Your task to perform on an android device: change the clock style Image 0: 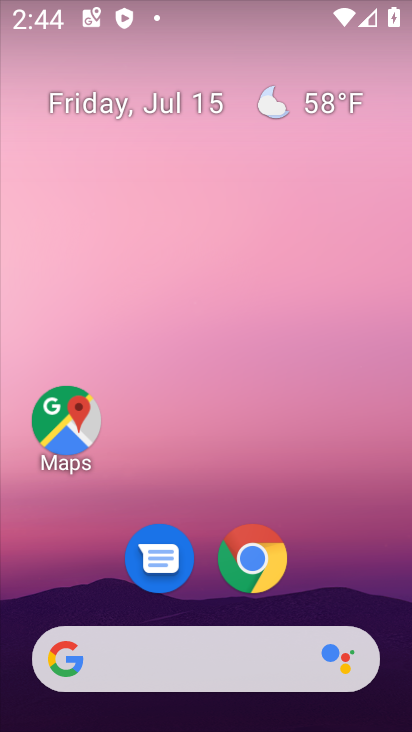
Step 0: drag from (347, 566) to (391, 111)
Your task to perform on an android device: change the clock style Image 1: 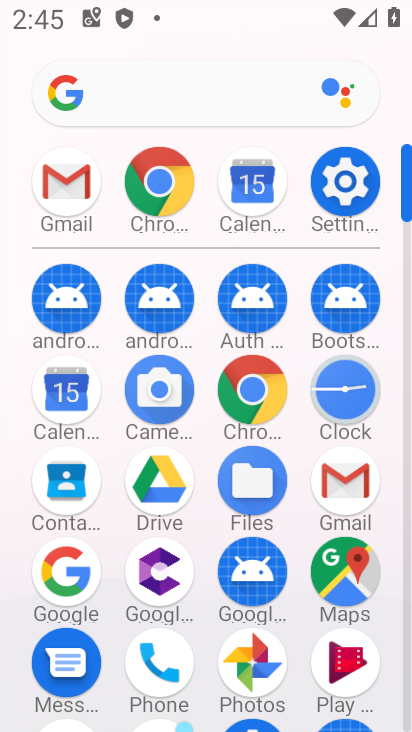
Step 1: click (363, 388)
Your task to perform on an android device: change the clock style Image 2: 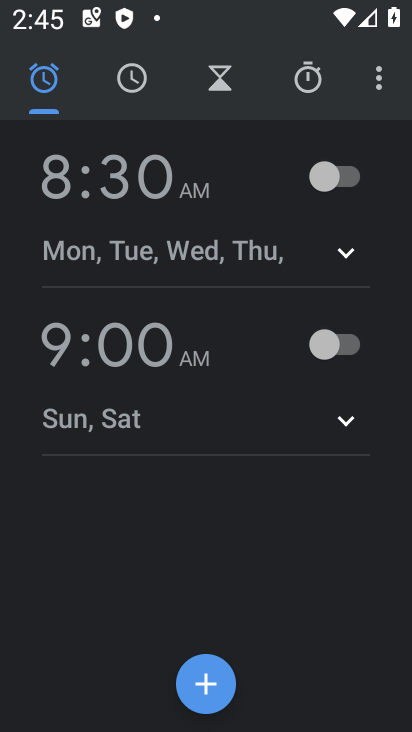
Step 2: click (377, 74)
Your task to perform on an android device: change the clock style Image 3: 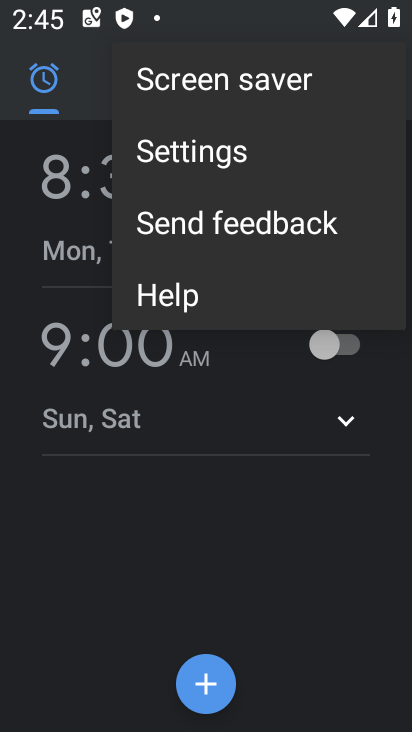
Step 3: click (265, 157)
Your task to perform on an android device: change the clock style Image 4: 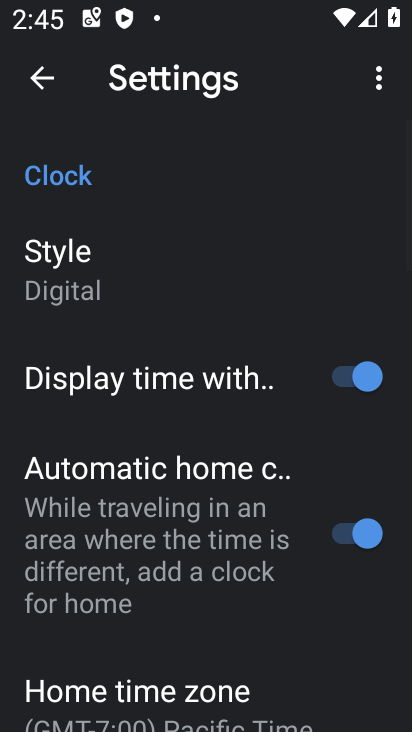
Step 4: drag from (280, 559) to (295, 457)
Your task to perform on an android device: change the clock style Image 5: 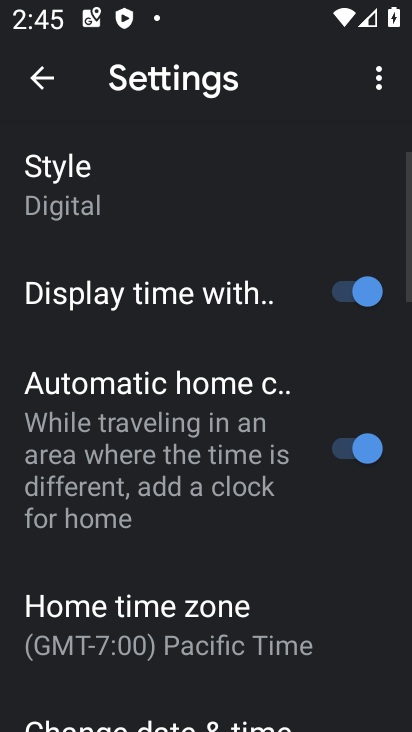
Step 5: drag from (305, 552) to (318, 414)
Your task to perform on an android device: change the clock style Image 6: 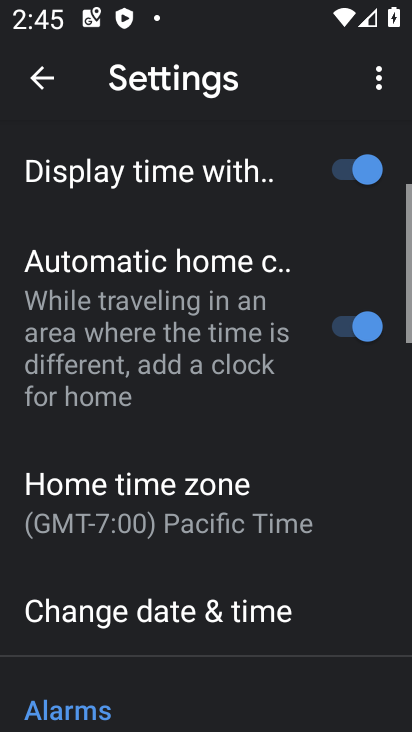
Step 6: drag from (333, 518) to (336, 396)
Your task to perform on an android device: change the clock style Image 7: 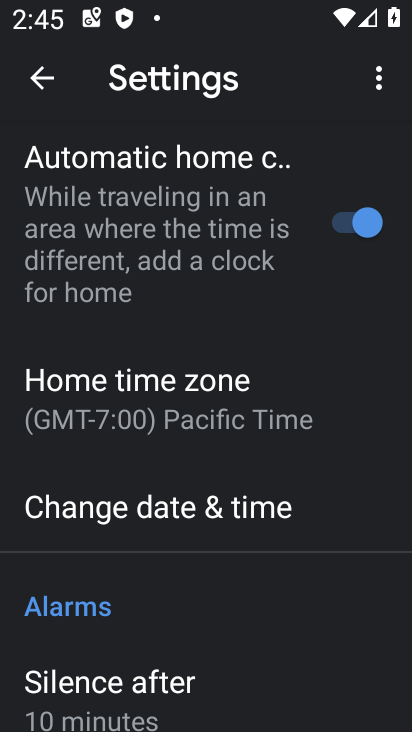
Step 7: drag from (348, 526) to (356, 433)
Your task to perform on an android device: change the clock style Image 8: 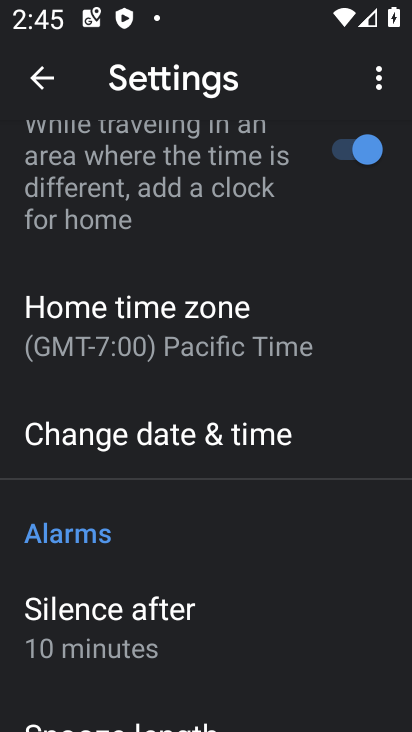
Step 8: drag from (352, 563) to (355, 458)
Your task to perform on an android device: change the clock style Image 9: 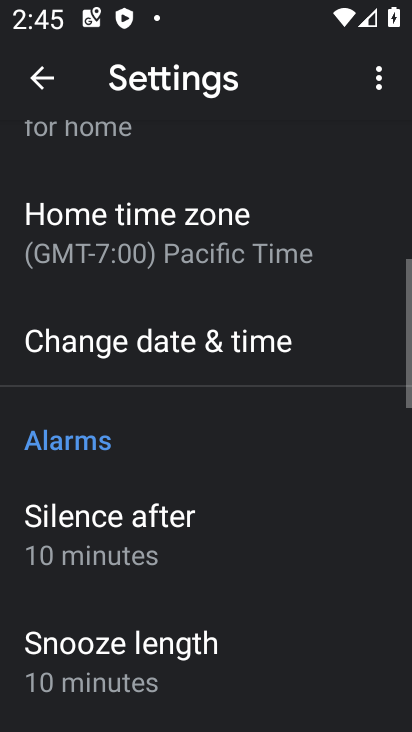
Step 9: drag from (359, 586) to (371, 474)
Your task to perform on an android device: change the clock style Image 10: 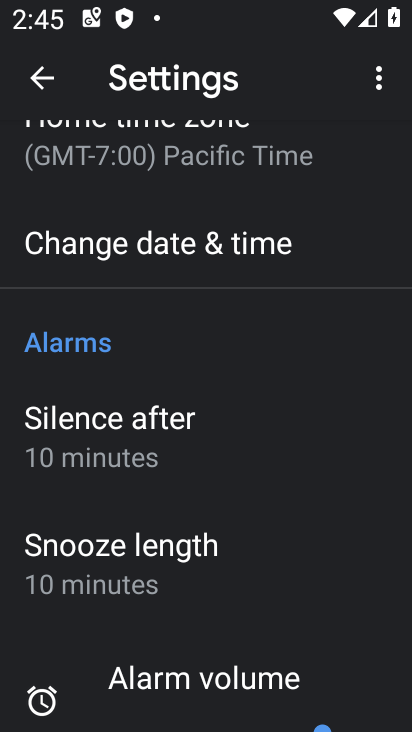
Step 10: drag from (358, 590) to (364, 482)
Your task to perform on an android device: change the clock style Image 11: 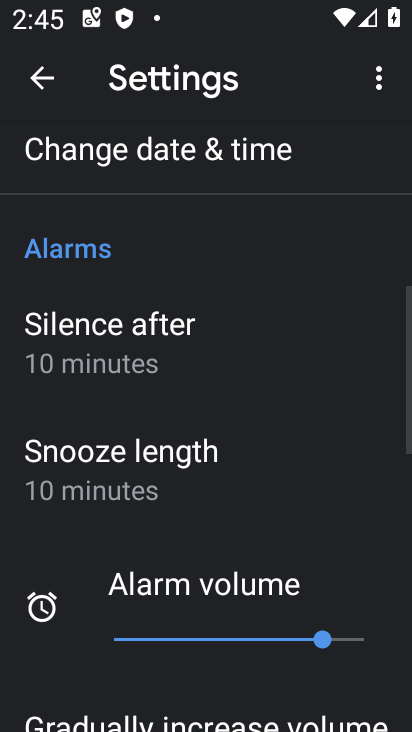
Step 11: drag from (376, 334) to (369, 427)
Your task to perform on an android device: change the clock style Image 12: 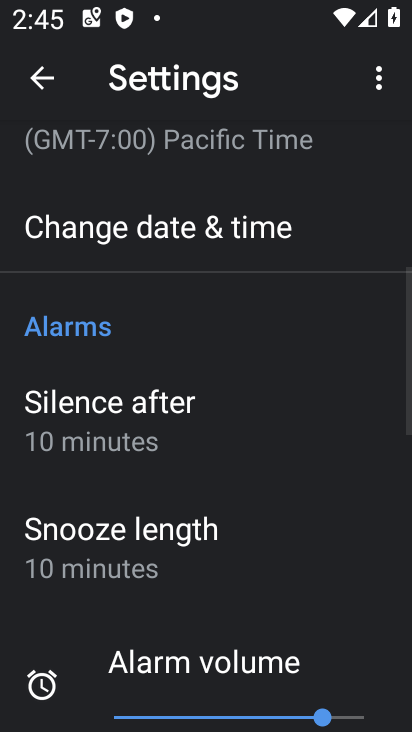
Step 12: drag from (369, 318) to (369, 419)
Your task to perform on an android device: change the clock style Image 13: 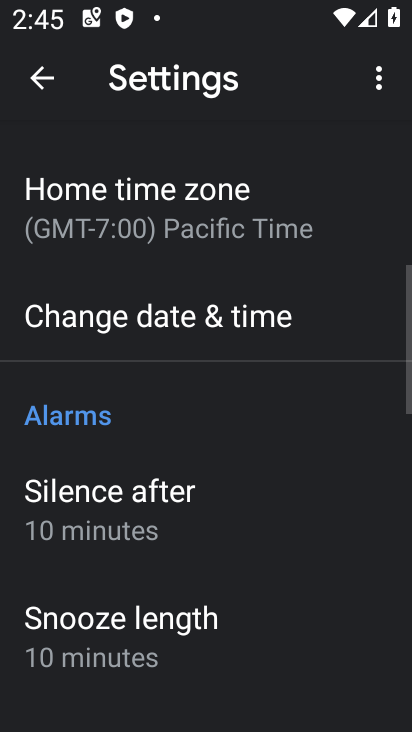
Step 13: drag from (367, 324) to (365, 424)
Your task to perform on an android device: change the clock style Image 14: 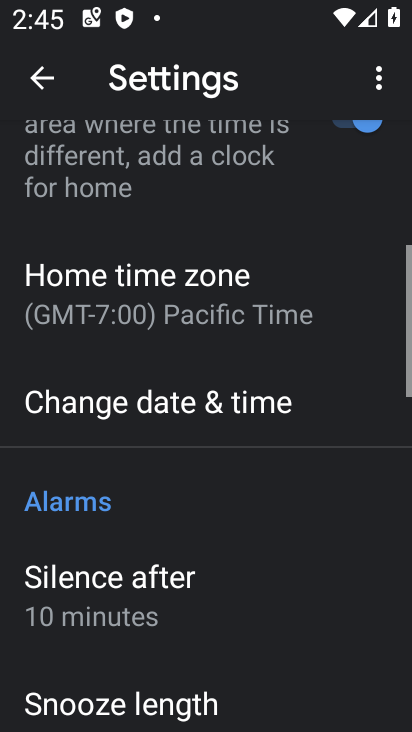
Step 14: drag from (366, 330) to (366, 402)
Your task to perform on an android device: change the clock style Image 15: 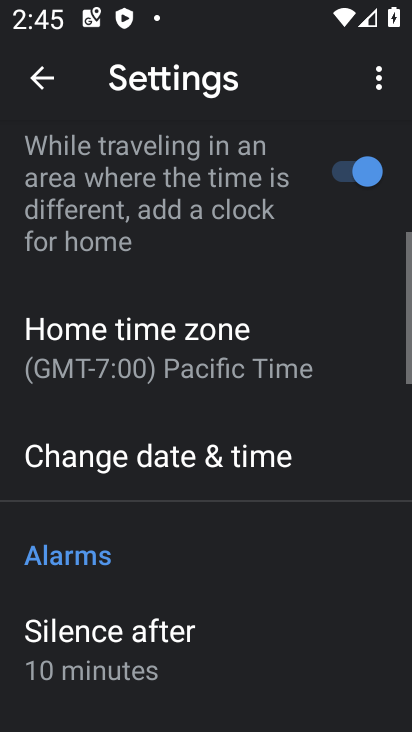
Step 15: drag from (371, 316) to (371, 406)
Your task to perform on an android device: change the clock style Image 16: 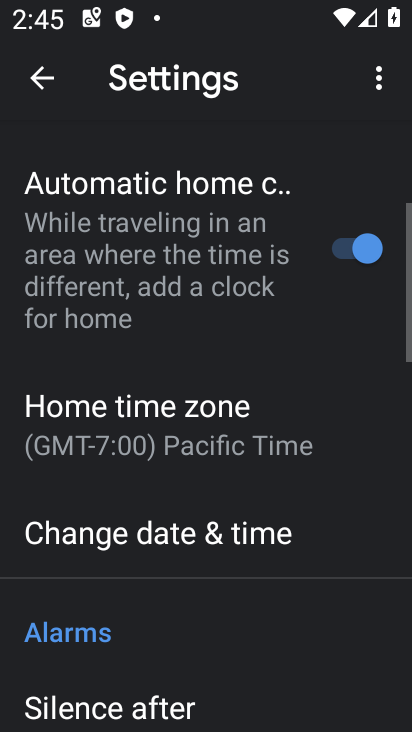
Step 16: drag from (374, 317) to (375, 418)
Your task to perform on an android device: change the clock style Image 17: 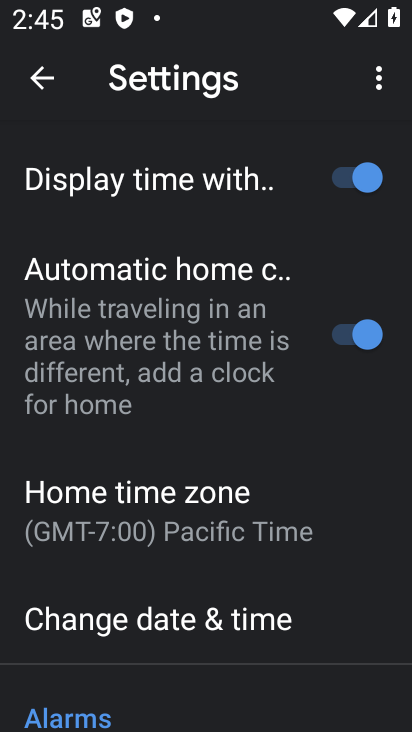
Step 17: drag from (359, 278) to (356, 402)
Your task to perform on an android device: change the clock style Image 18: 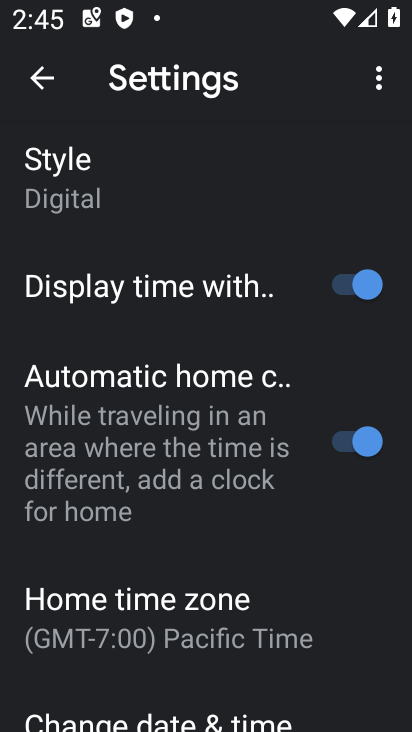
Step 18: drag from (302, 286) to (304, 472)
Your task to perform on an android device: change the clock style Image 19: 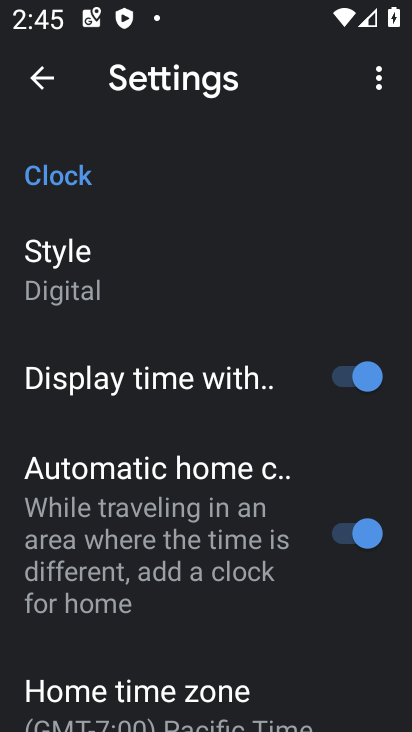
Step 19: click (124, 298)
Your task to perform on an android device: change the clock style Image 20: 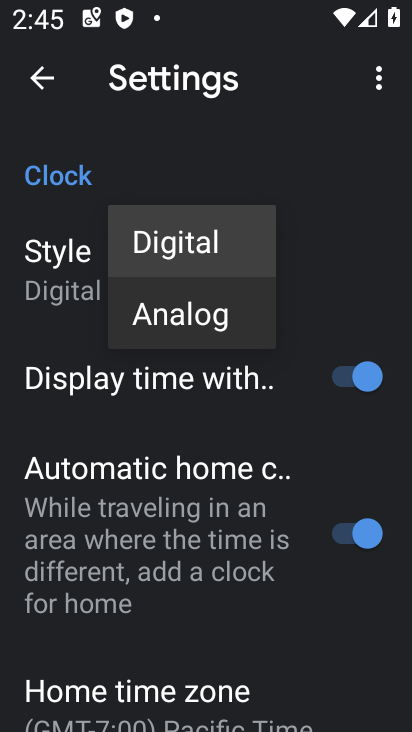
Step 20: click (242, 319)
Your task to perform on an android device: change the clock style Image 21: 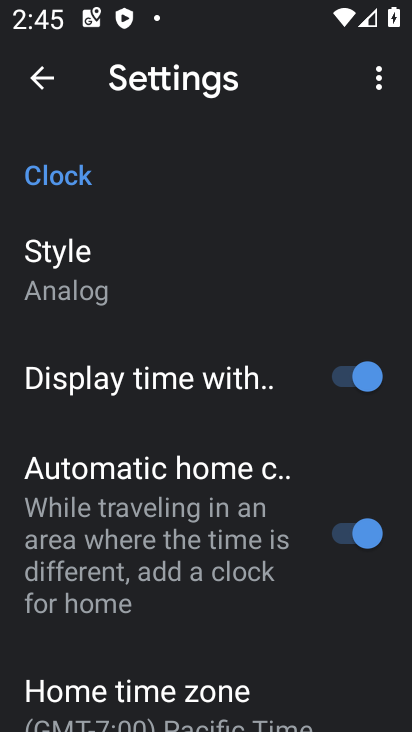
Step 21: task complete